Your task to perform on an android device: Open ESPN.com Image 0: 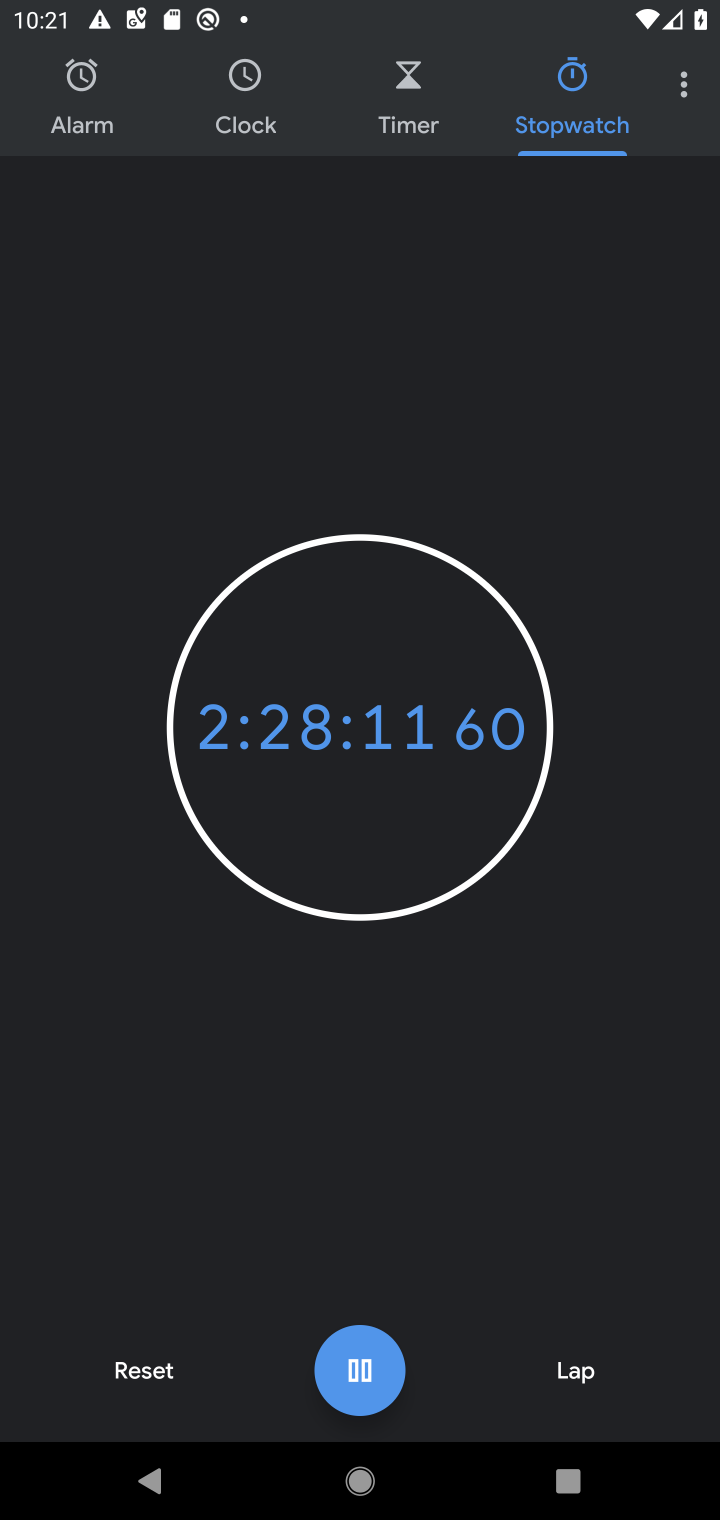
Step 0: press home button
Your task to perform on an android device: Open ESPN.com Image 1: 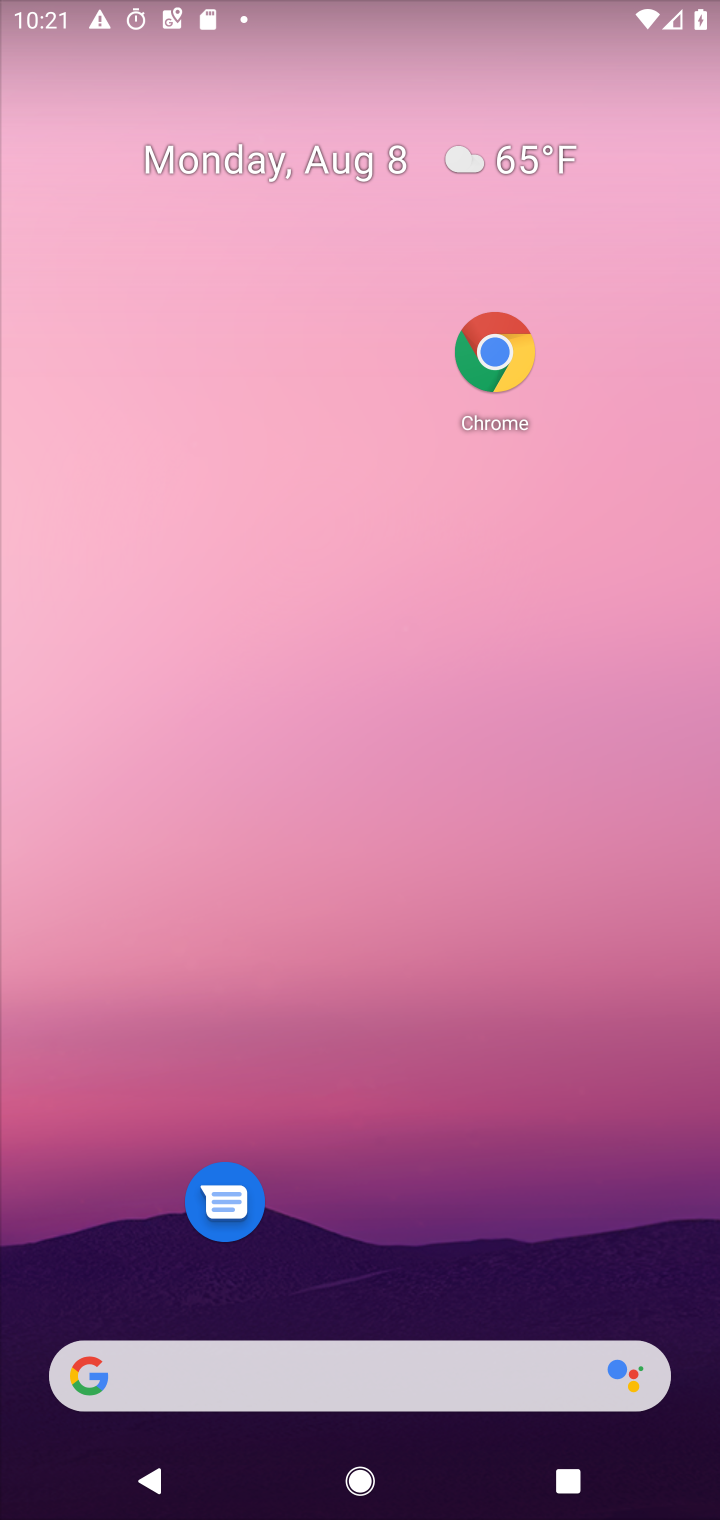
Step 1: drag from (387, 1336) to (617, 1337)
Your task to perform on an android device: Open ESPN.com Image 2: 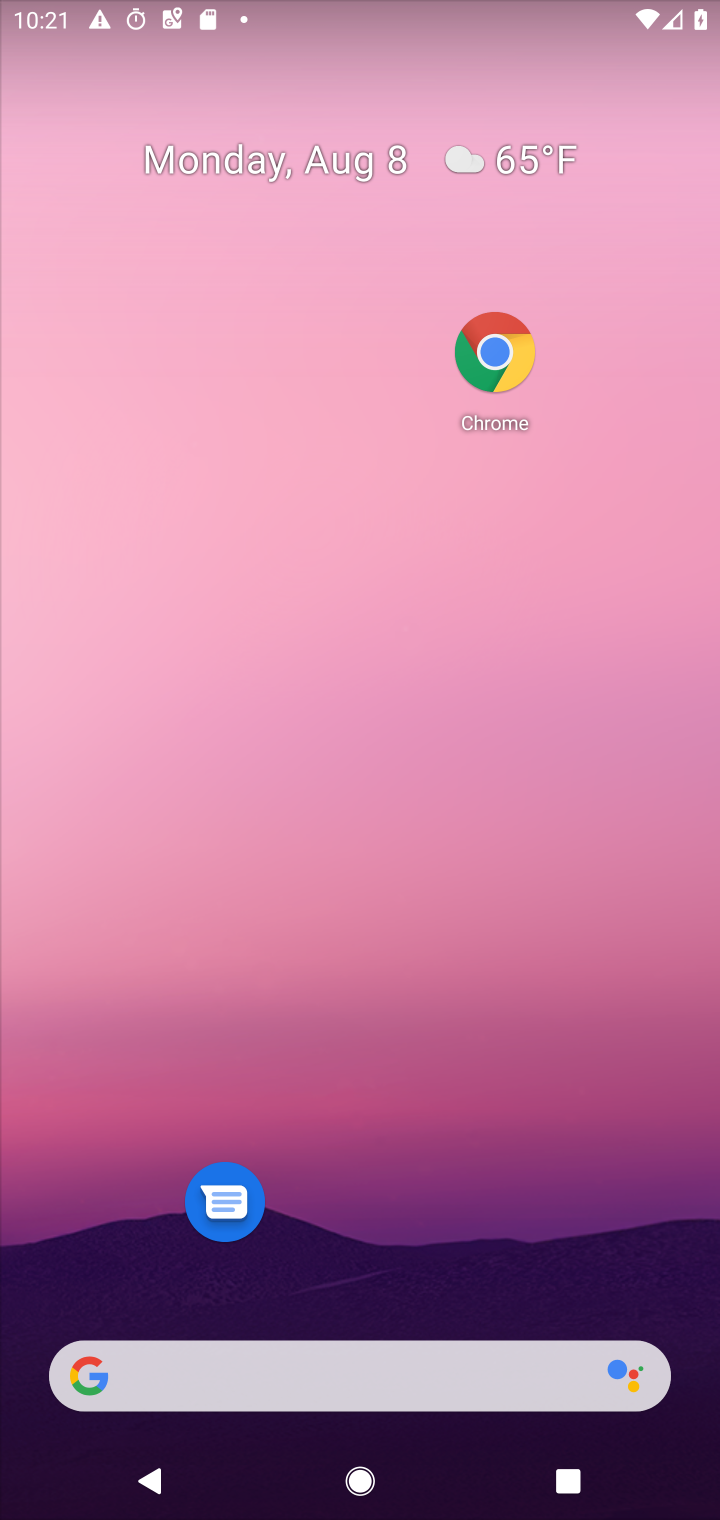
Step 2: drag from (446, 925) to (629, 33)
Your task to perform on an android device: Open ESPN.com Image 3: 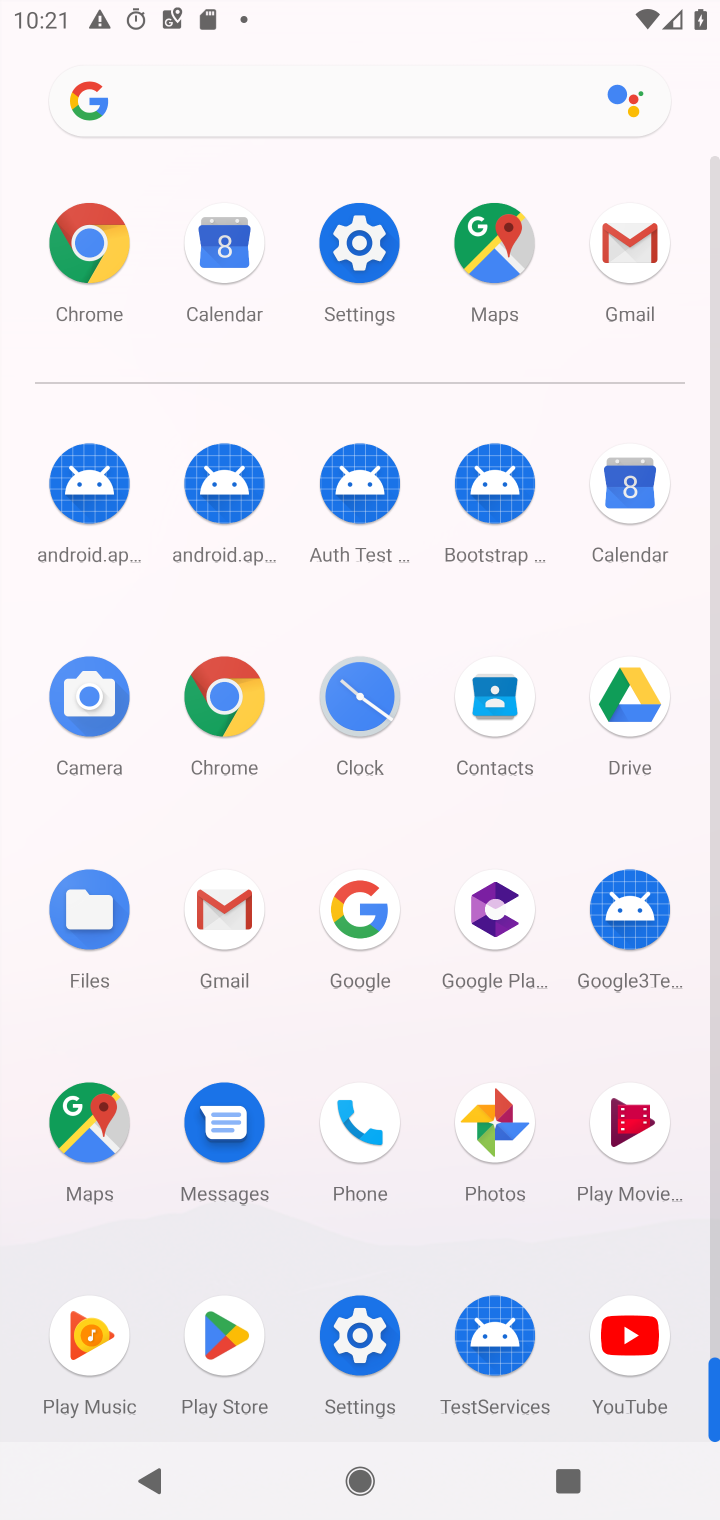
Step 3: click (82, 271)
Your task to perform on an android device: Open ESPN.com Image 4: 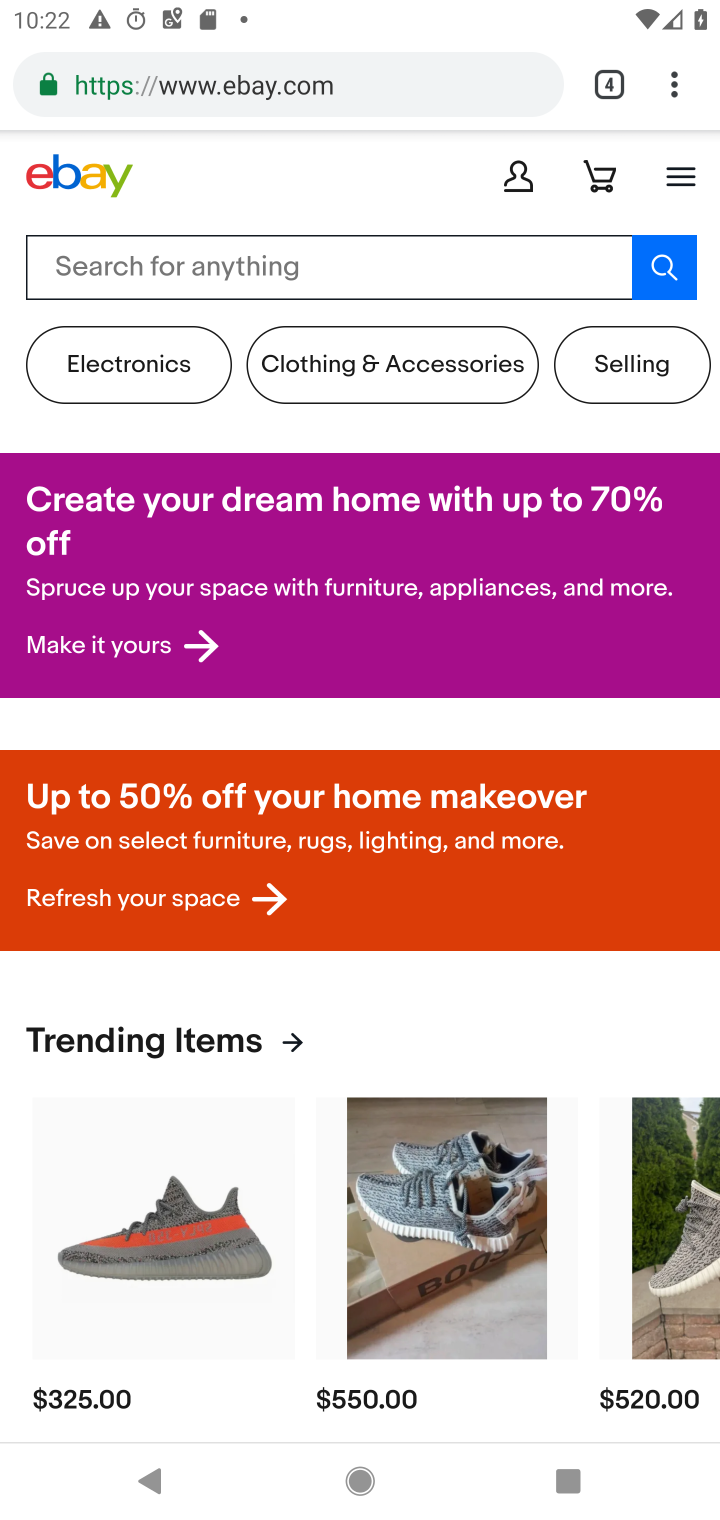
Step 4: click (513, 89)
Your task to perform on an android device: Open ESPN.com Image 5: 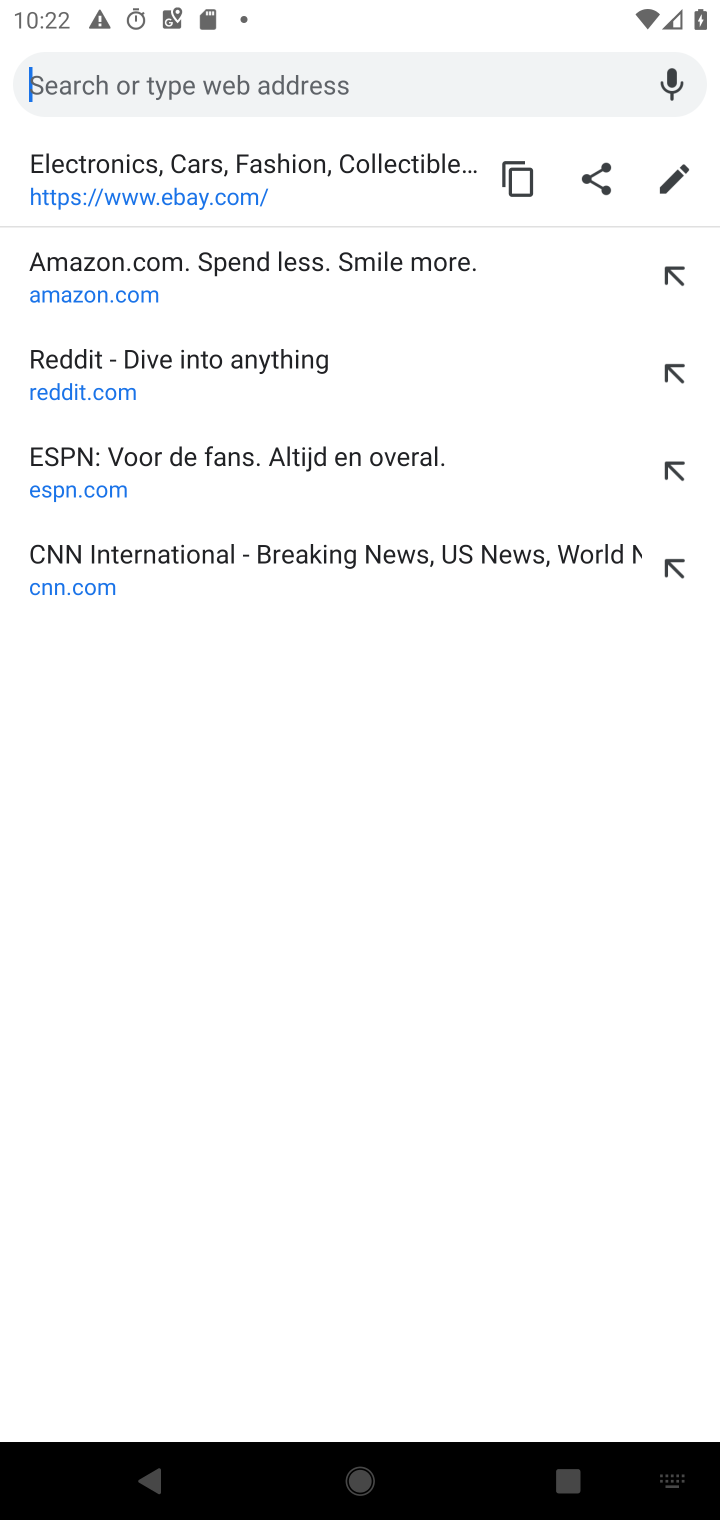
Step 5: click (212, 469)
Your task to perform on an android device: Open ESPN.com Image 6: 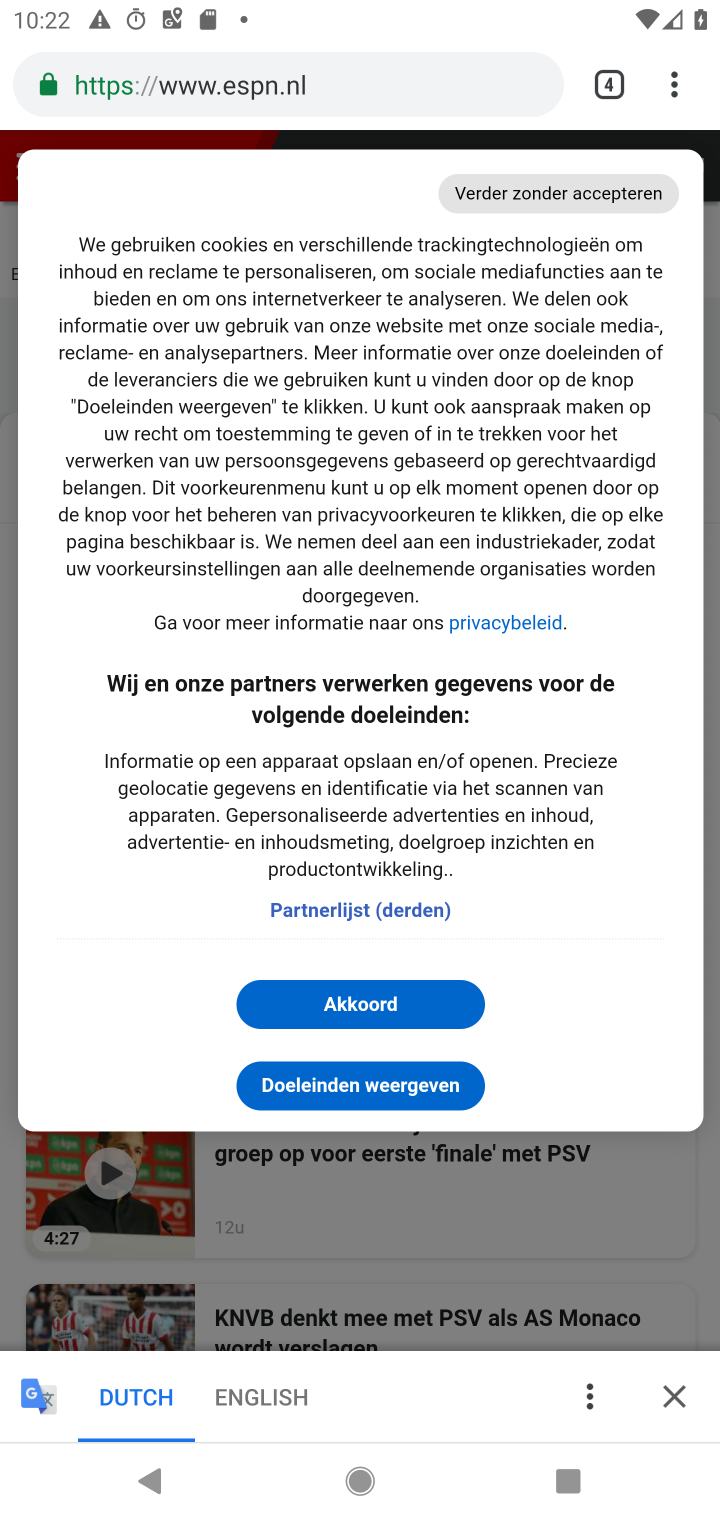
Step 6: task complete